Your task to perform on an android device: What is the news today? Image 0: 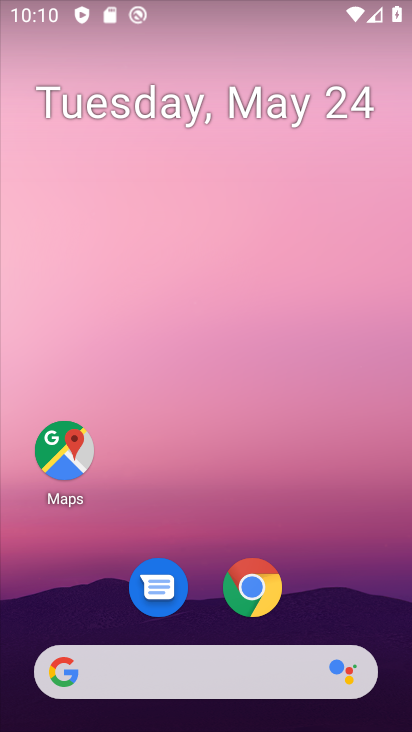
Step 0: press home button
Your task to perform on an android device: What is the news today? Image 1: 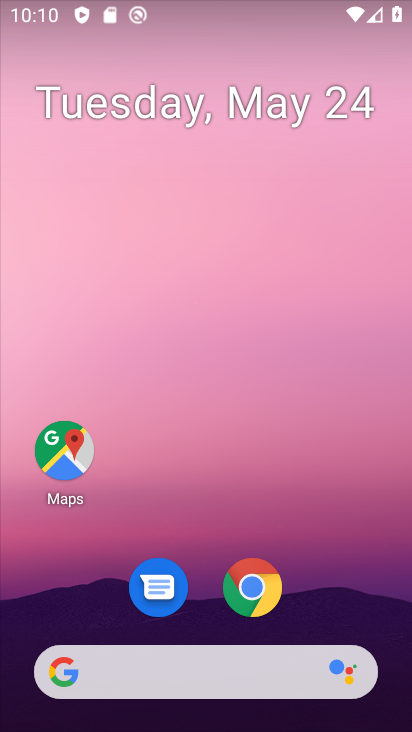
Step 1: click (245, 586)
Your task to perform on an android device: What is the news today? Image 2: 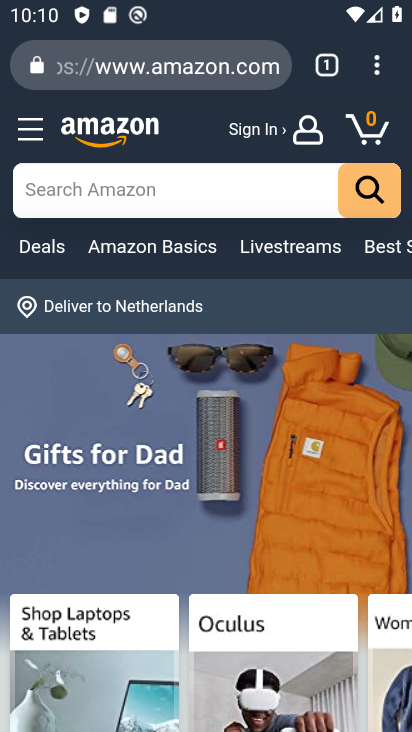
Step 2: click (162, 86)
Your task to perform on an android device: What is the news today? Image 3: 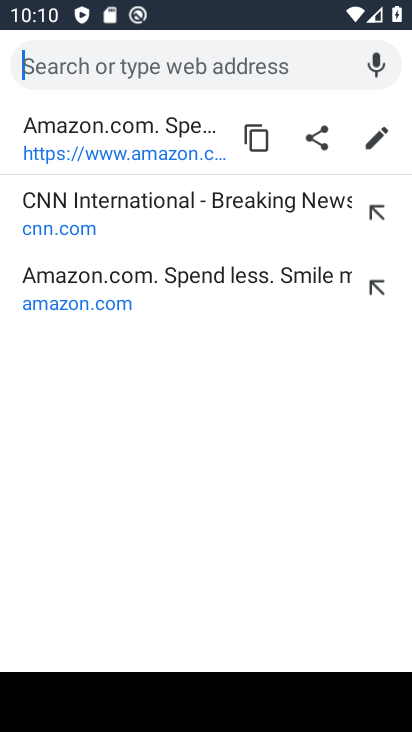
Step 3: type "What is the news today?"
Your task to perform on an android device: What is the news today? Image 4: 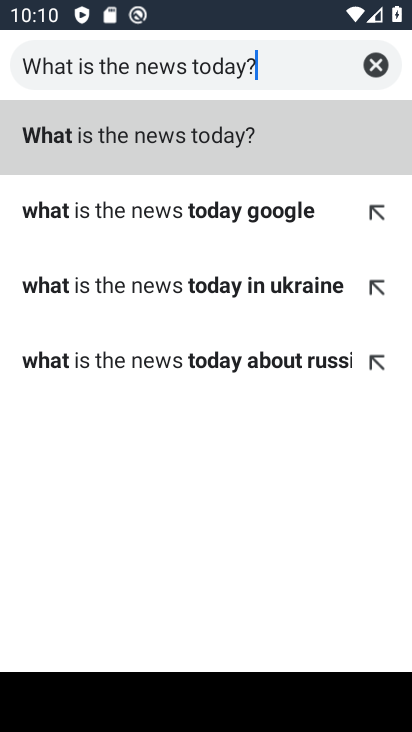
Step 4: type ""
Your task to perform on an android device: What is the news today? Image 5: 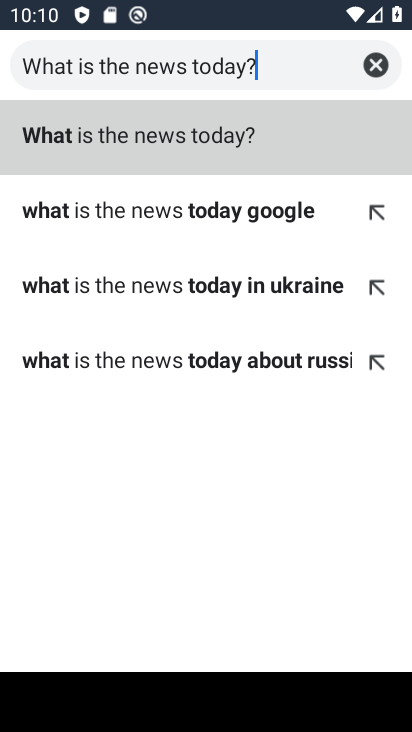
Step 5: click (228, 144)
Your task to perform on an android device: What is the news today? Image 6: 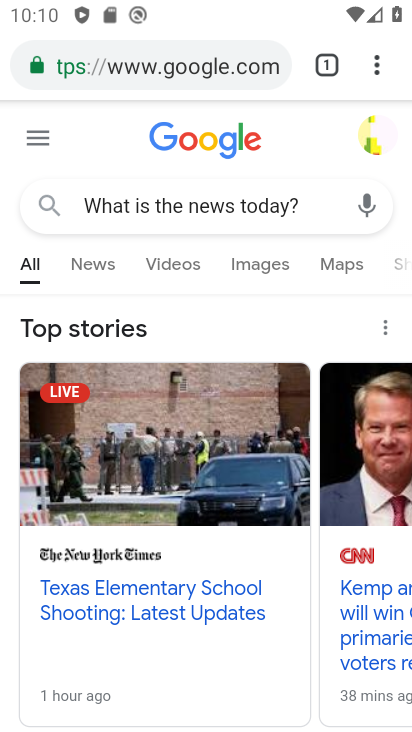
Step 6: task complete